Your task to perform on an android device: Open the web browser Image 0: 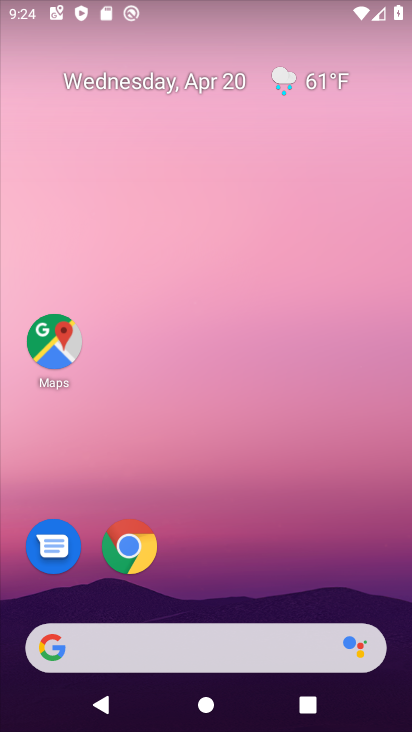
Step 0: drag from (158, 535) to (201, 245)
Your task to perform on an android device: Open the web browser Image 1: 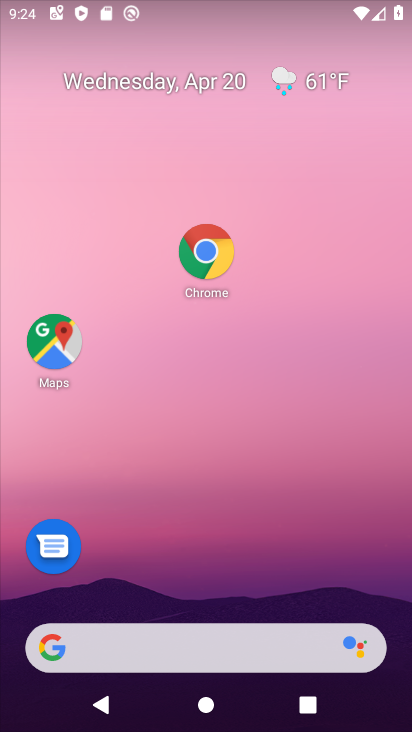
Step 1: drag from (245, 565) to (282, 274)
Your task to perform on an android device: Open the web browser Image 2: 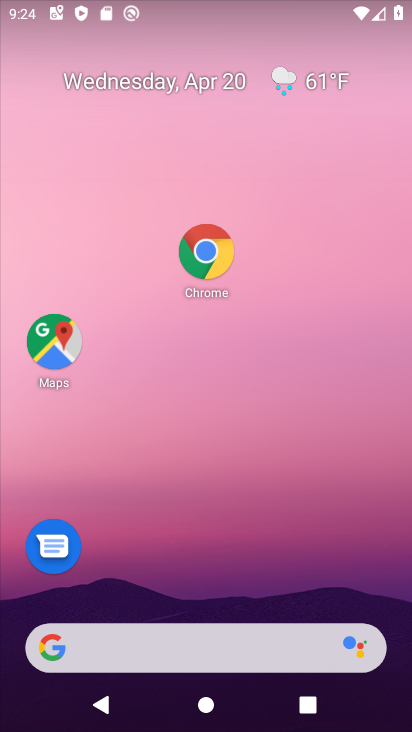
Step 2: drag from (247, 621) to (264, 187)
Your task to perform on an android device: Open the web browser Image 3: 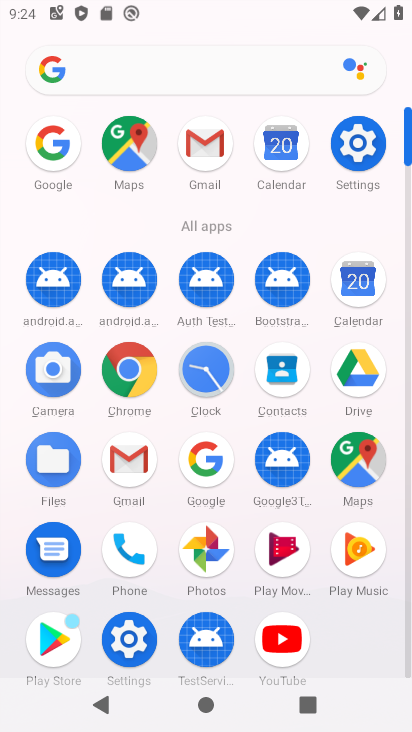
Step 3: click (208, 466)
Your task to perform on an android device: Open the web browser Image 4: 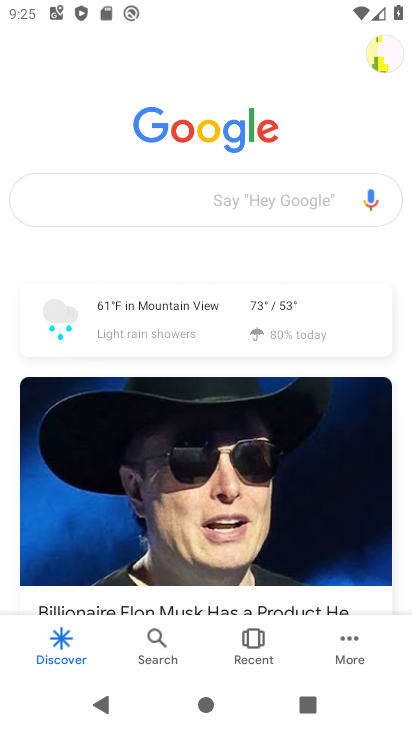
Step 4: task complete